Your task to perform on an android device: What is the recent news? Image 0: 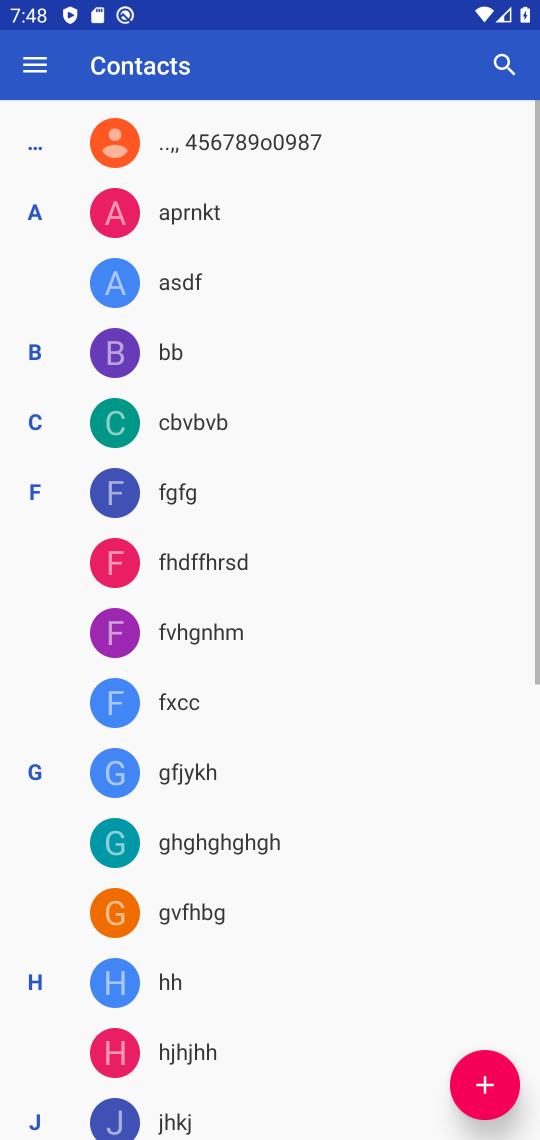
Step 0: press back button
Your task to perform on an android device: What is the recent news? Image 1: 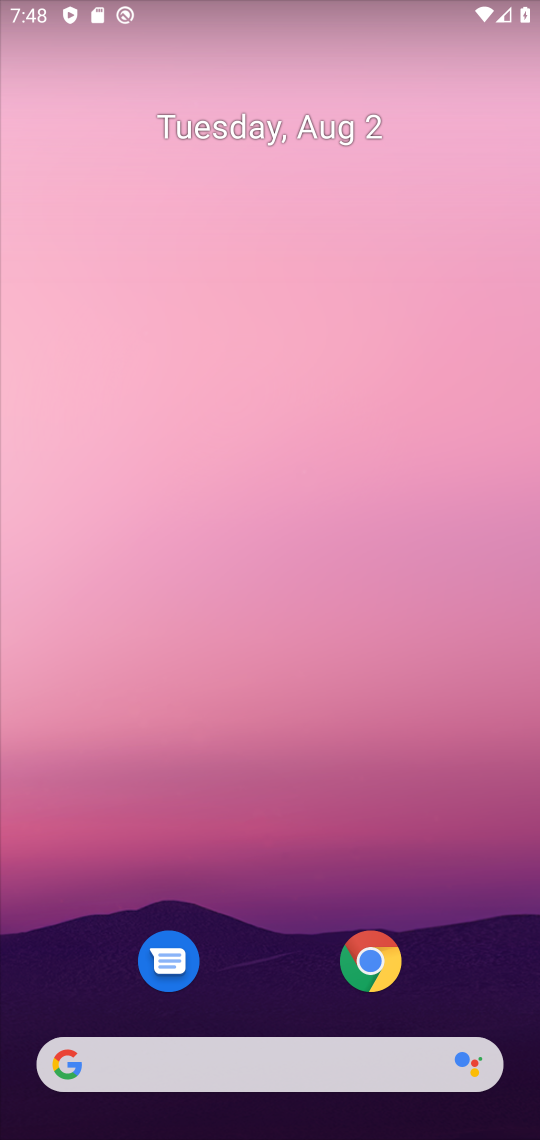
Step 1: click (249, 1060)
Your task to perform on an android device: What is the recent news? Image 2: 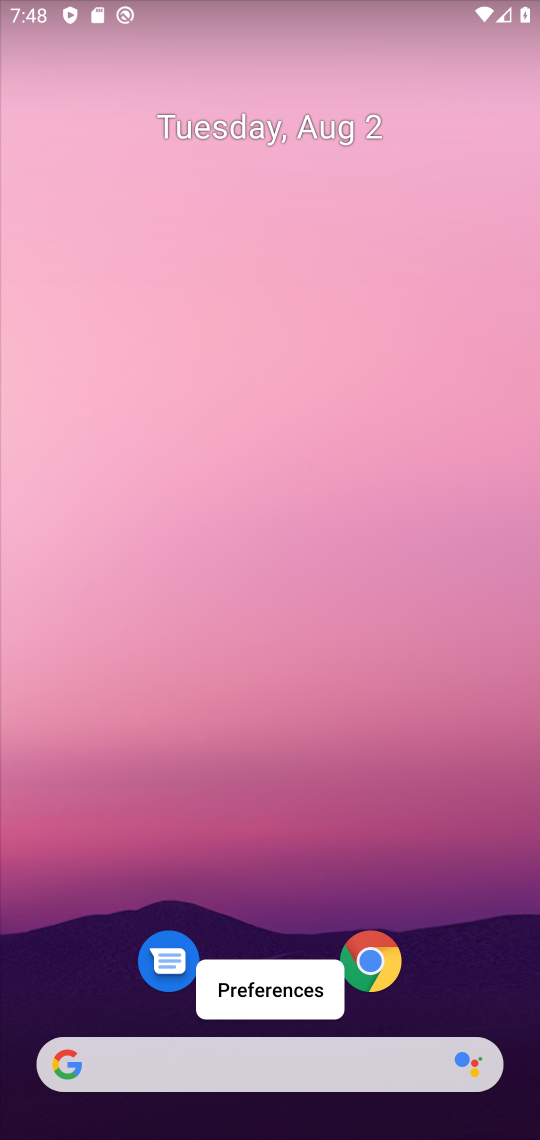
Step 2: click (173, 1067)
Your task to perform on an android device: What is the recent news? Image 3: 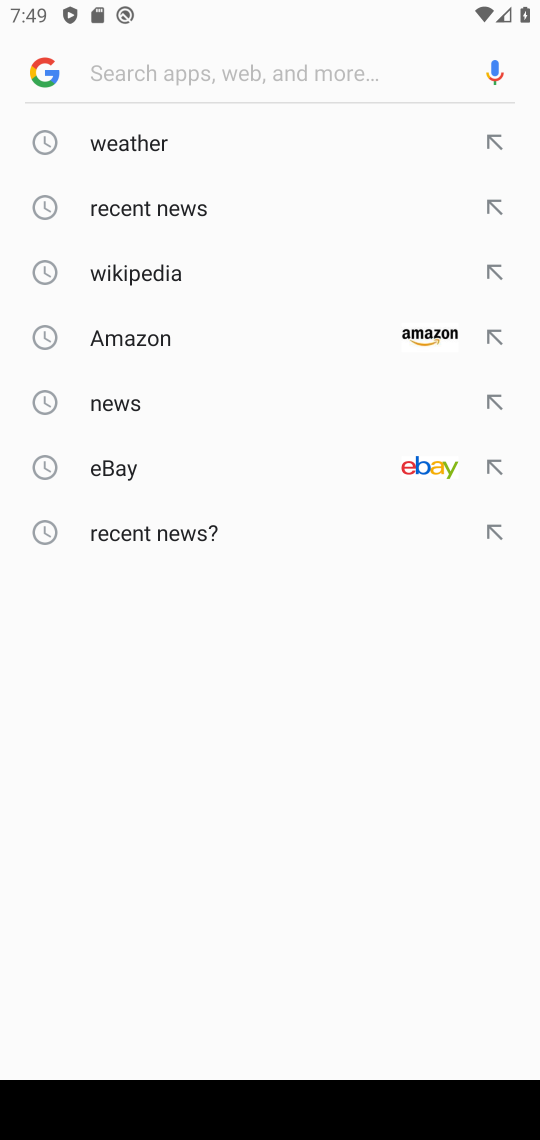
Step 3: click (217, 208)
Your task to perform on an android device: What is the recent news? Image 4: 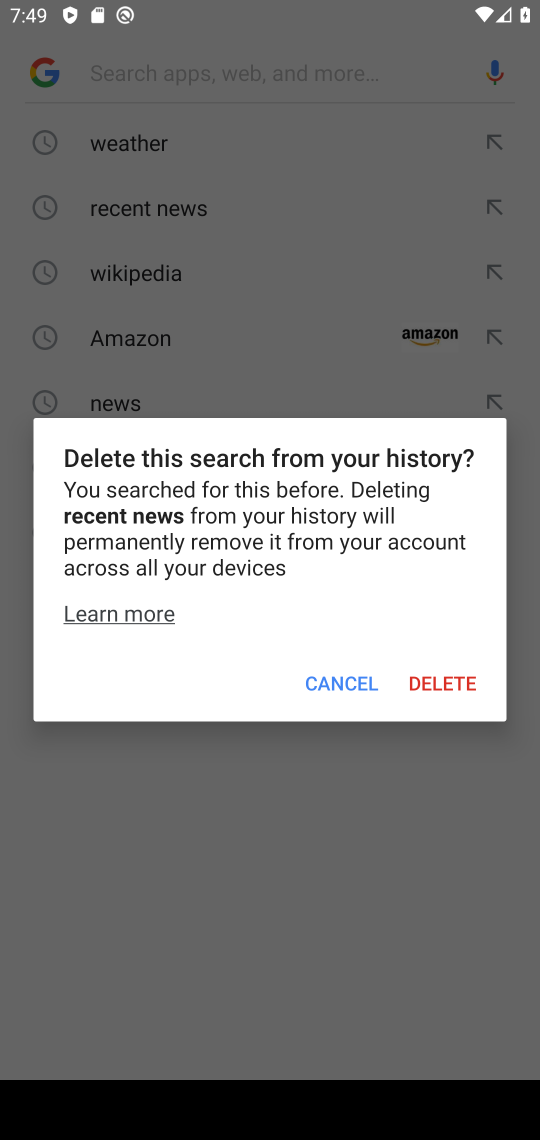
Step 4: click (335, 685)
Your task to perform on an android device: What is the recent news? Image 5: 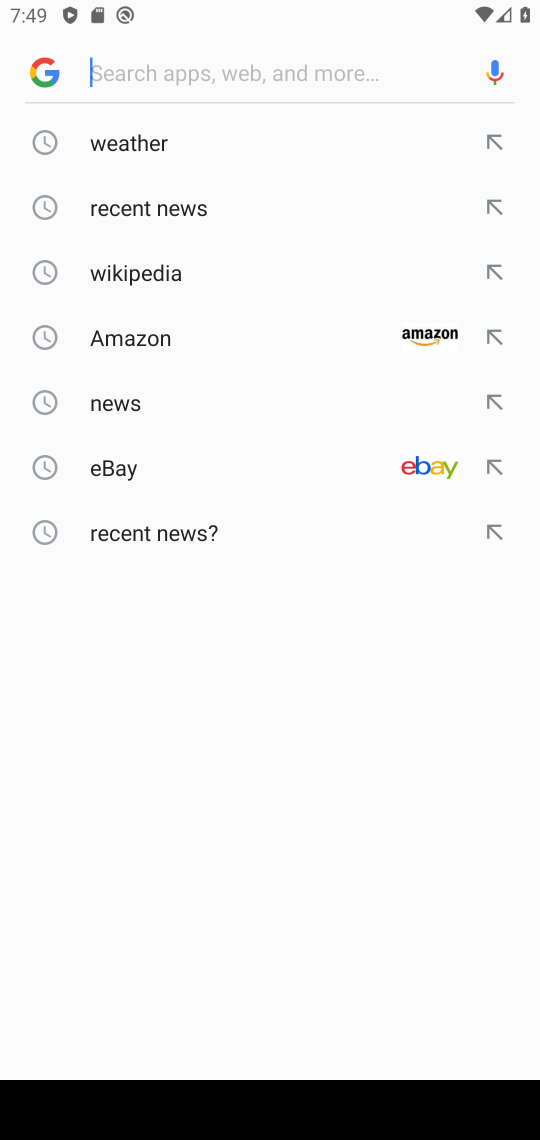
Step 5: click (186, 201)
Your task to perform on an android device: What is the recent news? Image 6: 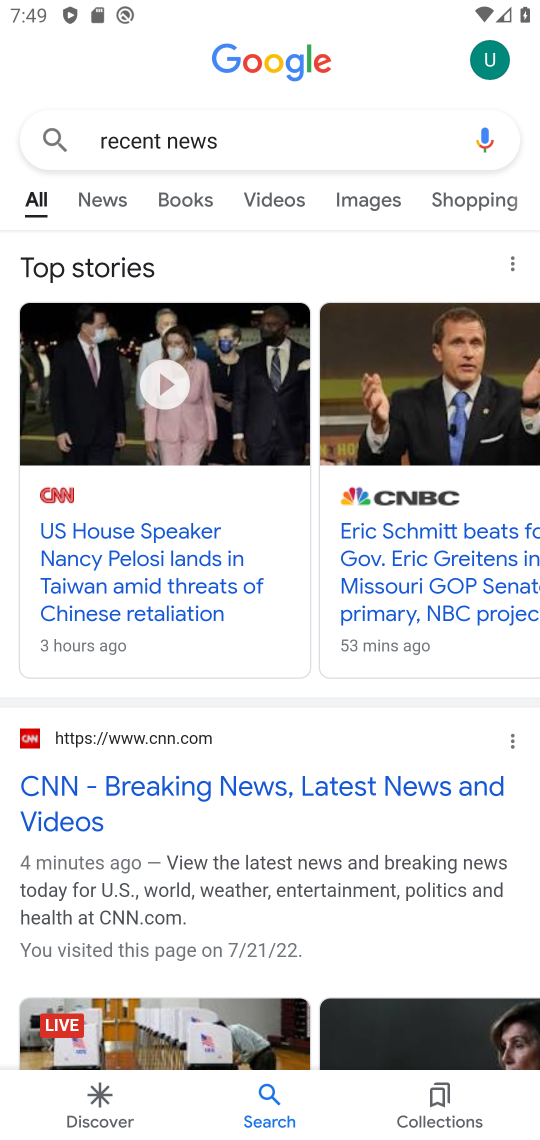
Step 6: task complete